Your task to perform on an android device: turn on wifi Image 0: 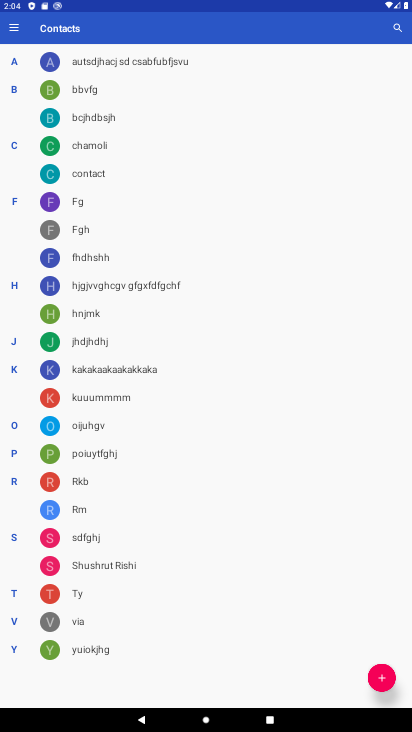
Step 0: press home button
Your task to perform on an android device: turn on wifi Image 1: 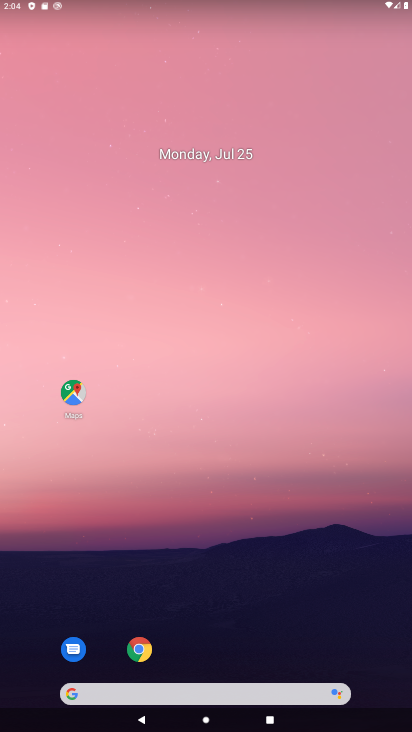
Step 1: drag from (392, 651) to (357, 198)
Your task to perform on an android device: turn on wifi Image 2: 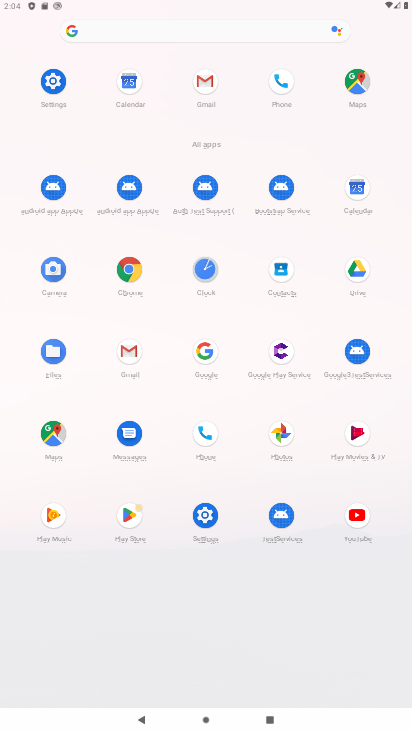
Step 2: click (204, 516)
Your task to perform on an android device: turn on wifi Image 3: 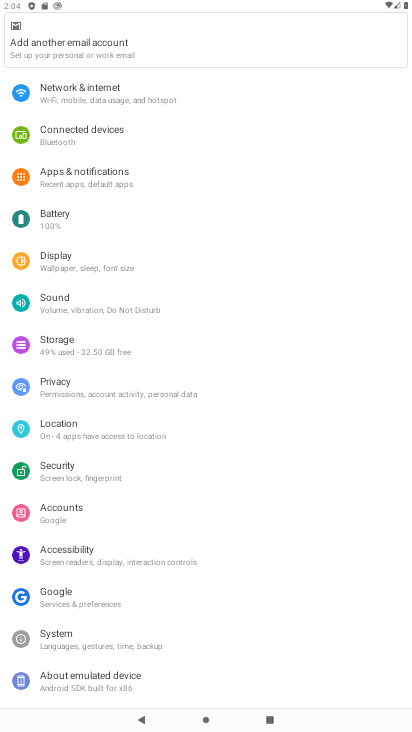
Step 3: click (87, 87)
Your task to perform on an android device: turn on wifi Image 4: 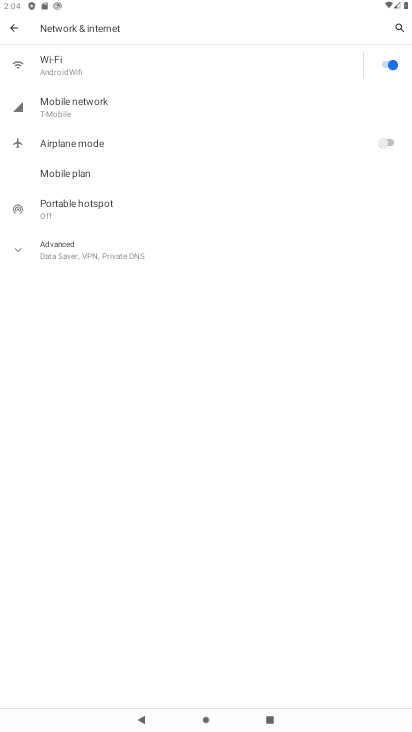
Step 4: task complete